Your task to perform on an android device: toggle wifi Image 0: 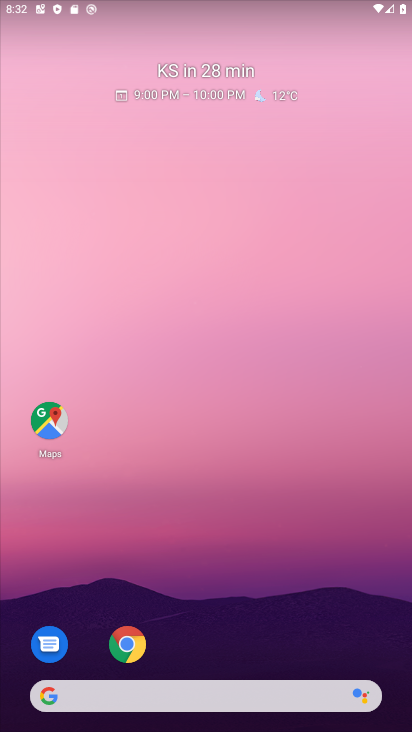
Step 0: drag from (381, 657) to (325, 1)
Your task to perform on an android device: toggle wifi Image 1: 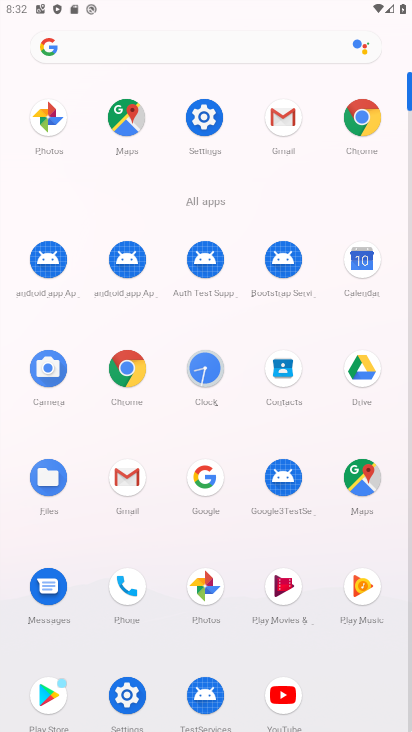
Step 1: click (411, 693)
Your task to perform on an android device: toggle wifi Image 2: 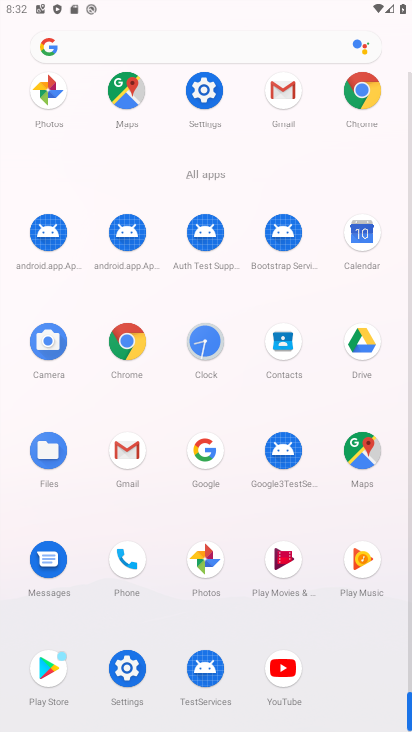
Step 2: click (123, 669)
Your task to perform on an android device: toggle wifi Image 3: 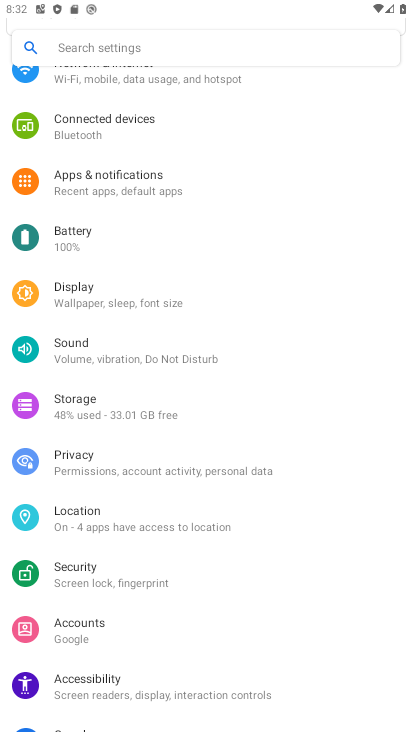
Step 3: drag from (329, 142) to (337, 344)
Your task to perform on an android device: toggle wifi Image 4: 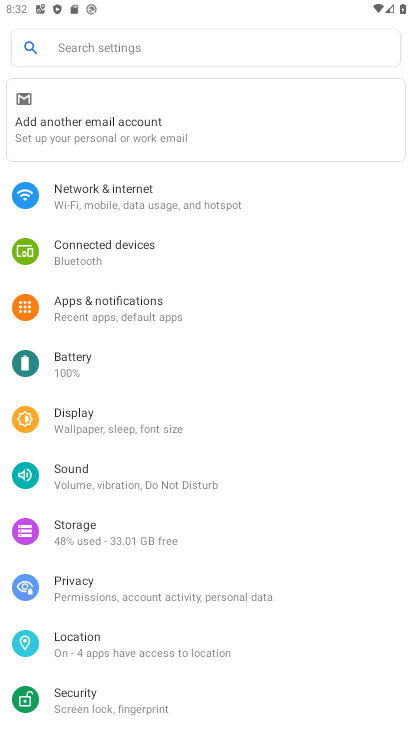
Step 4: click (81, 192)
Your task to perform on an android device: toggle wifi Image 5: 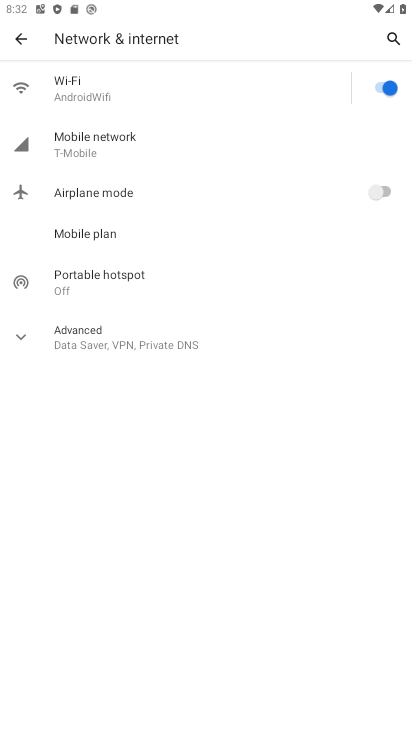
Step 5: click (379, 87)
Your task to perform on an android device: toggle wifi Image 6: 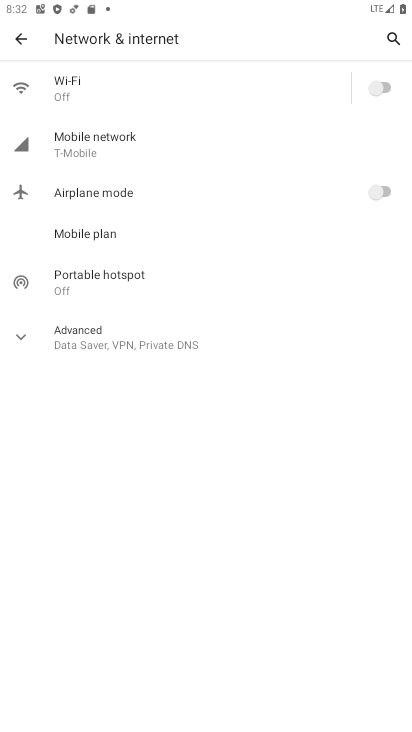
Step 6: task complete